Your task to perform on an android device: open app "Microsoft Excel" Image 0: 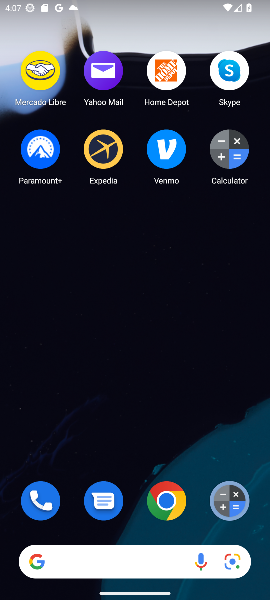
Step 0: press home button
Your task to perform on an android device: open app "Microsoft Excel" Image 1: 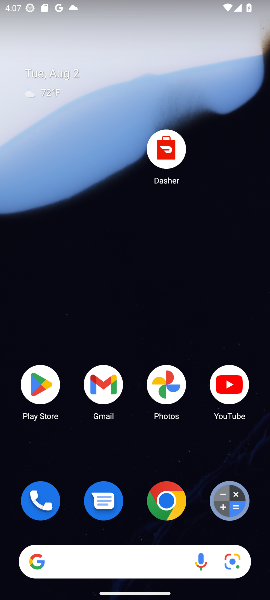
Step 1: click (28, 395)
Your task to perform on an android device: open app "Microsoft Excel" Image 2: 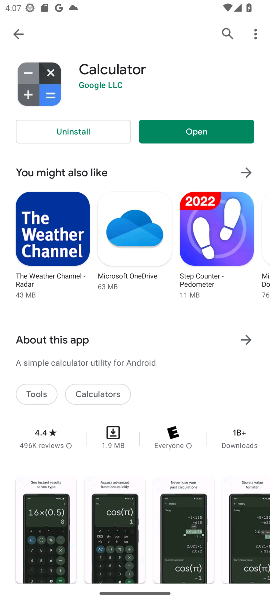
Step 2: click (221, 36)
Your task to perform on an android device: open app "Microsoft Excel" Image 3: 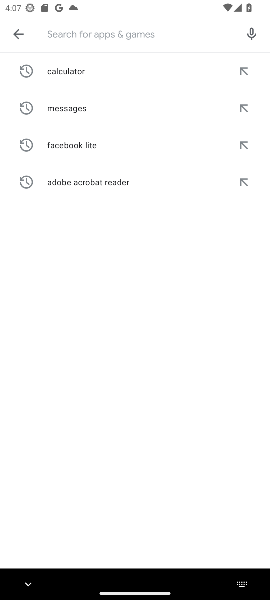
Step 3: type "Microsoft Excel"
Your task to perform on an android device: open app "Microsoft Excel" Image 4: 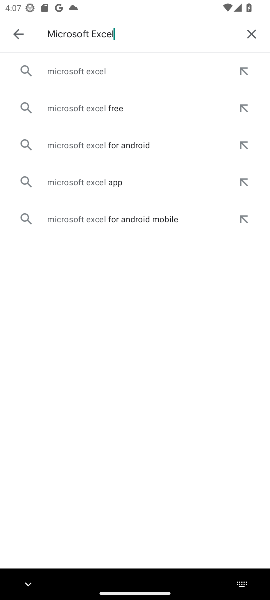
Step 4: click (84, 75)
Your task to perform on an android device: open app "Microsoft Excel" Image 5: 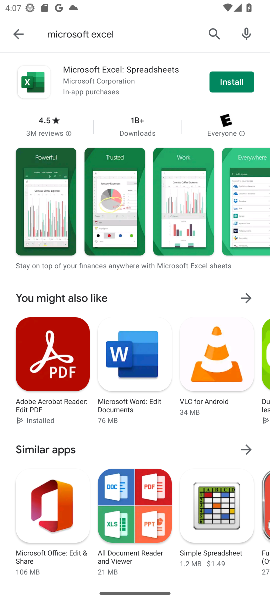
Step 5: task complete